Your task to perform on an android device: When is my next appointment? Image 0: 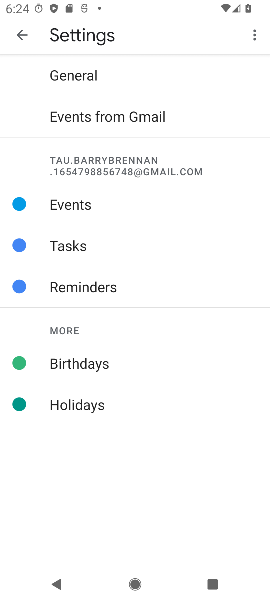
Step 0: press home button
Your task to perform on an android device: When is my next appointment? Image 1: 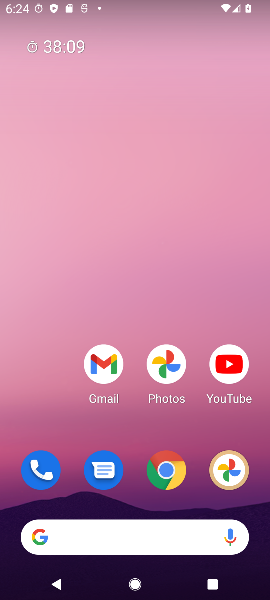
Step 1: drag from (151, 544) to (201, 147)
Your task to perform on an android device: When is my next appointment? Image 2: 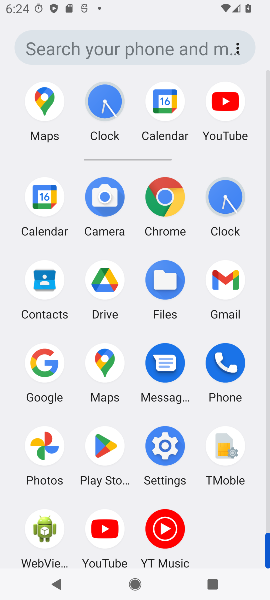
Step 2: click (53, 210)
Your task to perform on an android device: When is my next appointment? Image 3: 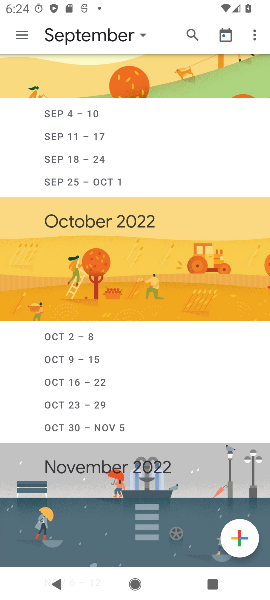
Step 3: click (141, 37)
Your task to perform on an android device: When is my next appointment? Image 4: 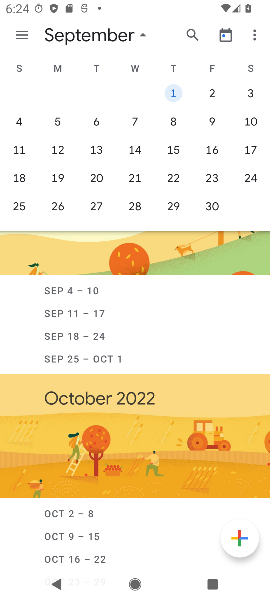
Step 4: drag from (26, 146) to (261, 180)
Your task to perform on an android device: When is my next appointment? Image 5: 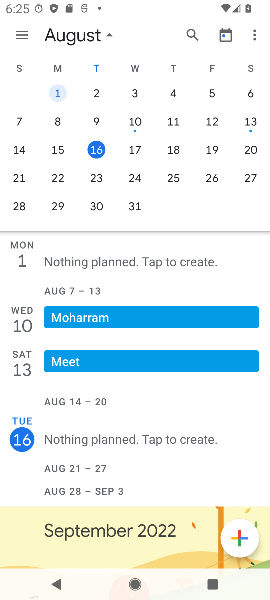
Step 5: click (229, 195)
Your task to perform on an android device: When is my next appointment? Image 6: 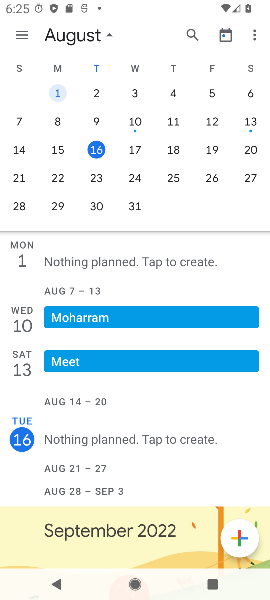
Step 6: click (91, 145)
Your task to perform on an android device: When is my next appointment? Image 7: 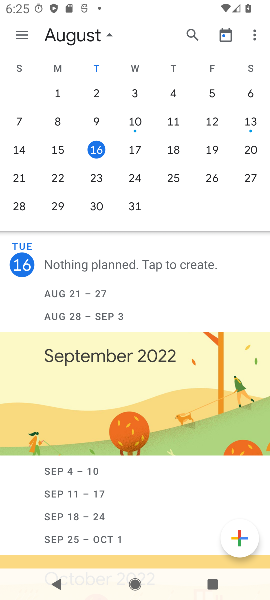
Step 7: task complete